Your task to perform on an android device: Open Maps and search for coffee Image 0: 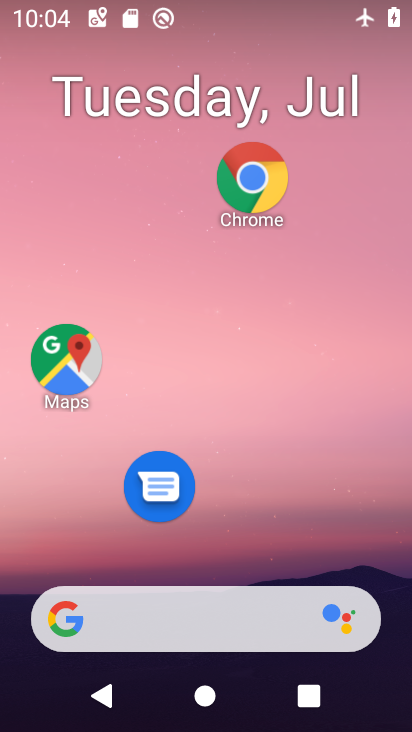
Step 0: drag from (216, 631) to (178, 139)
Your task to perform on an android device: Open Maps and search for coffee Image 1: 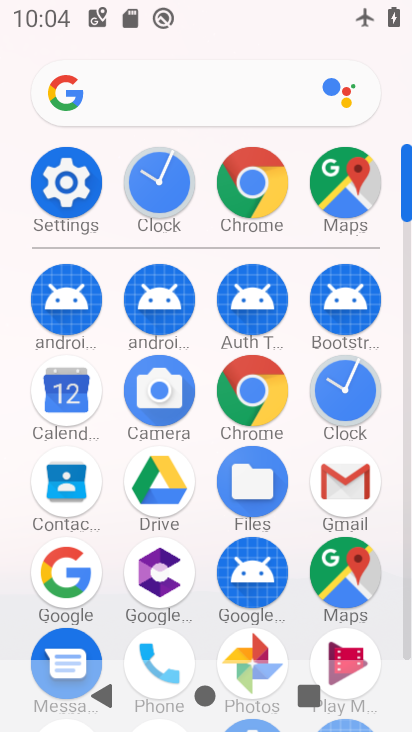
Step 1: drag from (226, 446) to (194, 217)
Your task to perform on an android device: Open Maps and search for coffee Image 2: 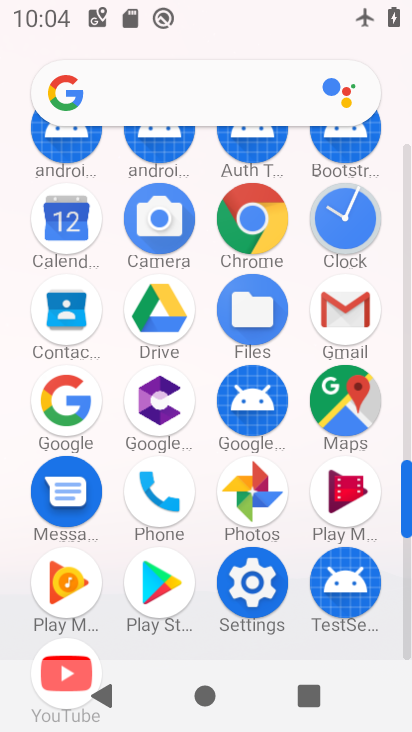
Step 2: click (363, 402)
Your task to perform on an android device: Open Maps and search for coffee Image 3: 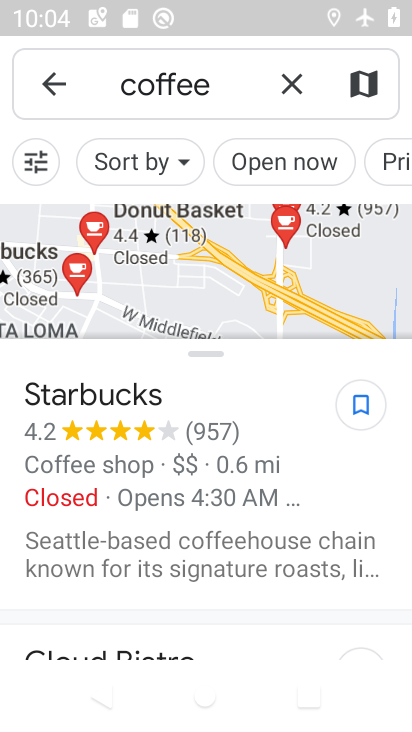
Step 3: task complete